Your task to perform on an android device: add a contact in the contacts app Image 0: 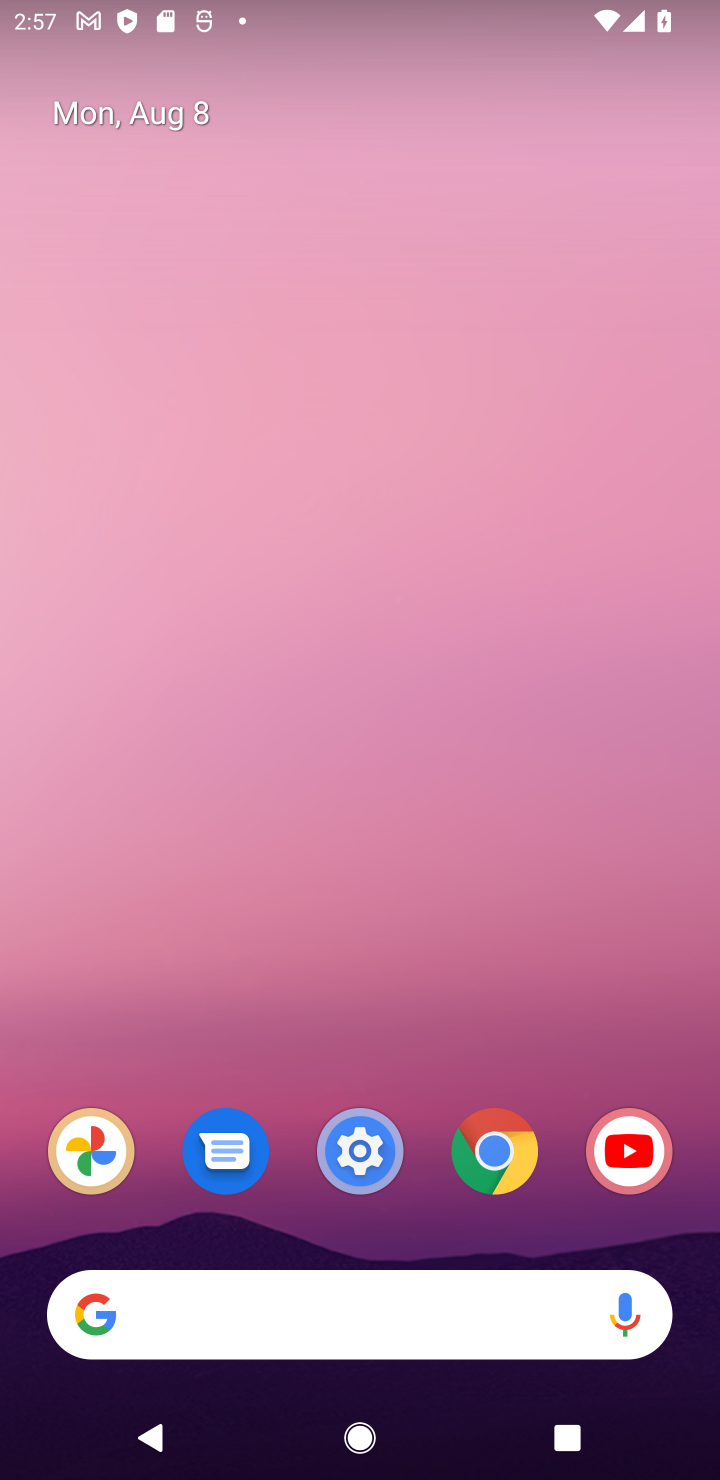
Step 0: press home button
Your task to perform on an android device: add a contact in the contacts app Image 1: 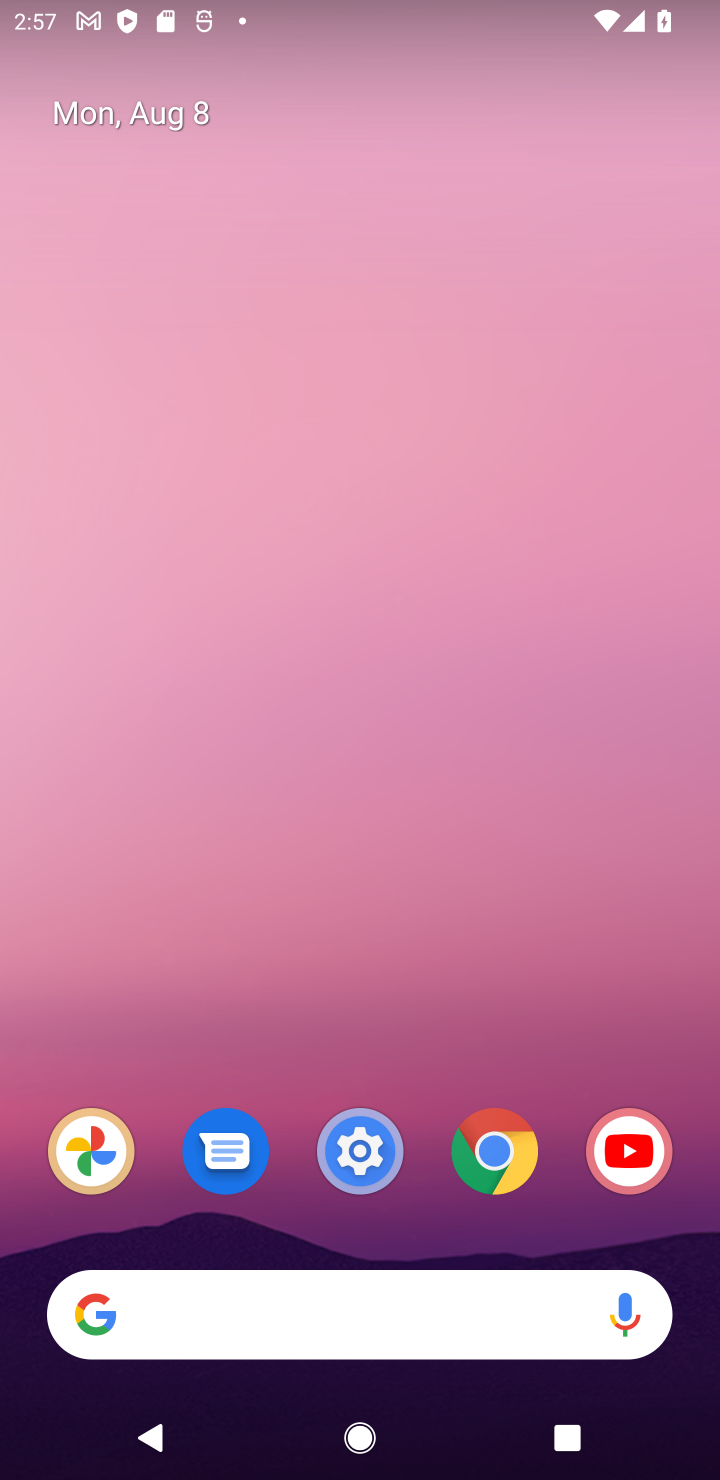
Step 1: drag from (389, 1103) to (386, 206)
Your task to perform on an android device: add a contact in the contacts app Image 2: 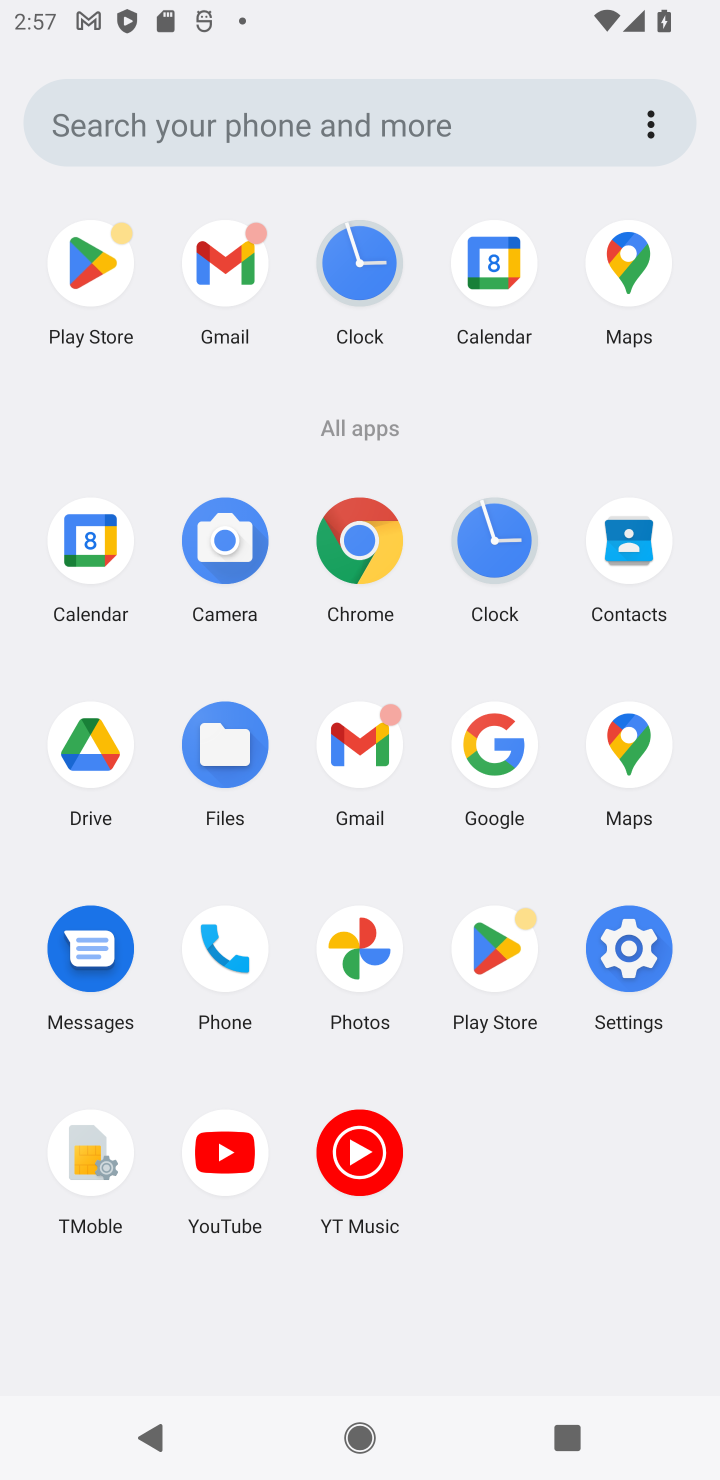
Step 2: click (628, 524)
Your task to perform on an android device: add a contact in the contacts app Image 3: 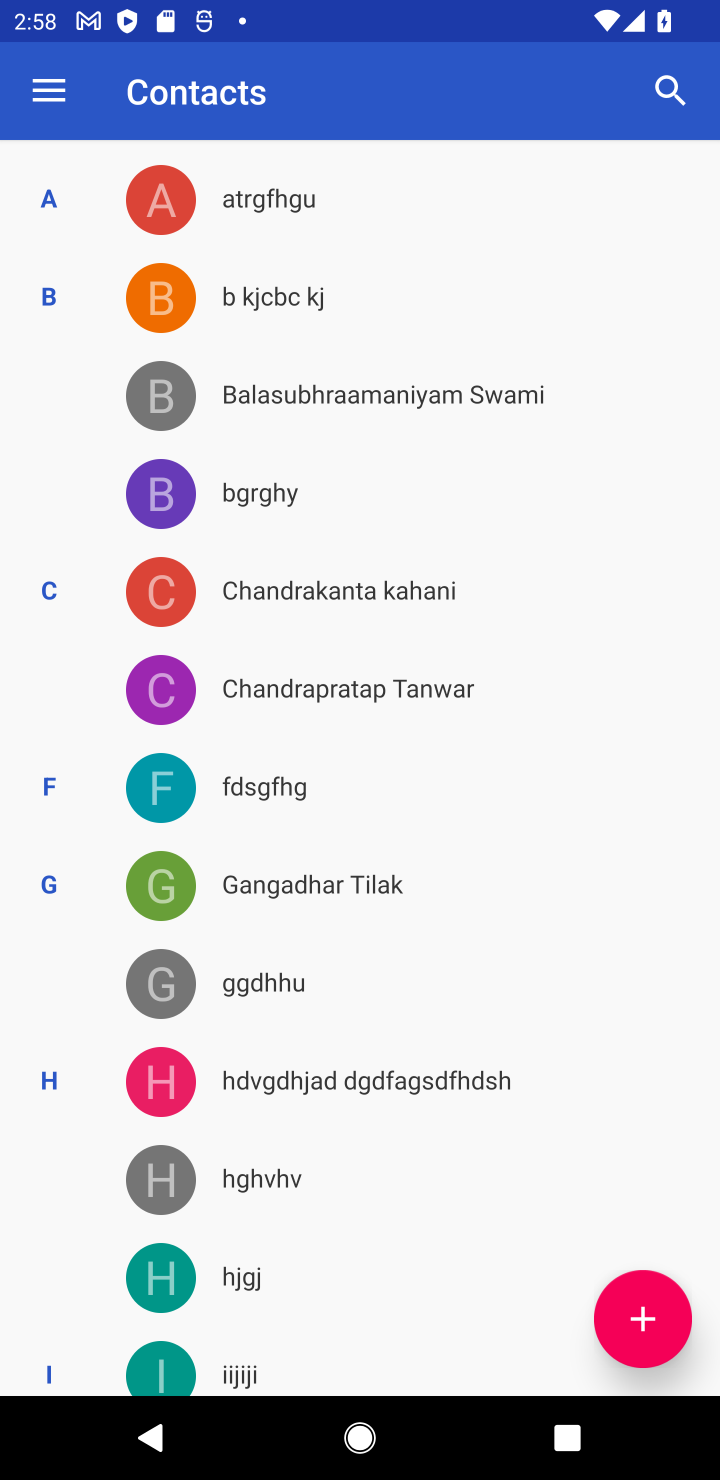
Step 3: click (641, 1330)
Your task to perform on an android device: add a contact in the contacts app Image 4: 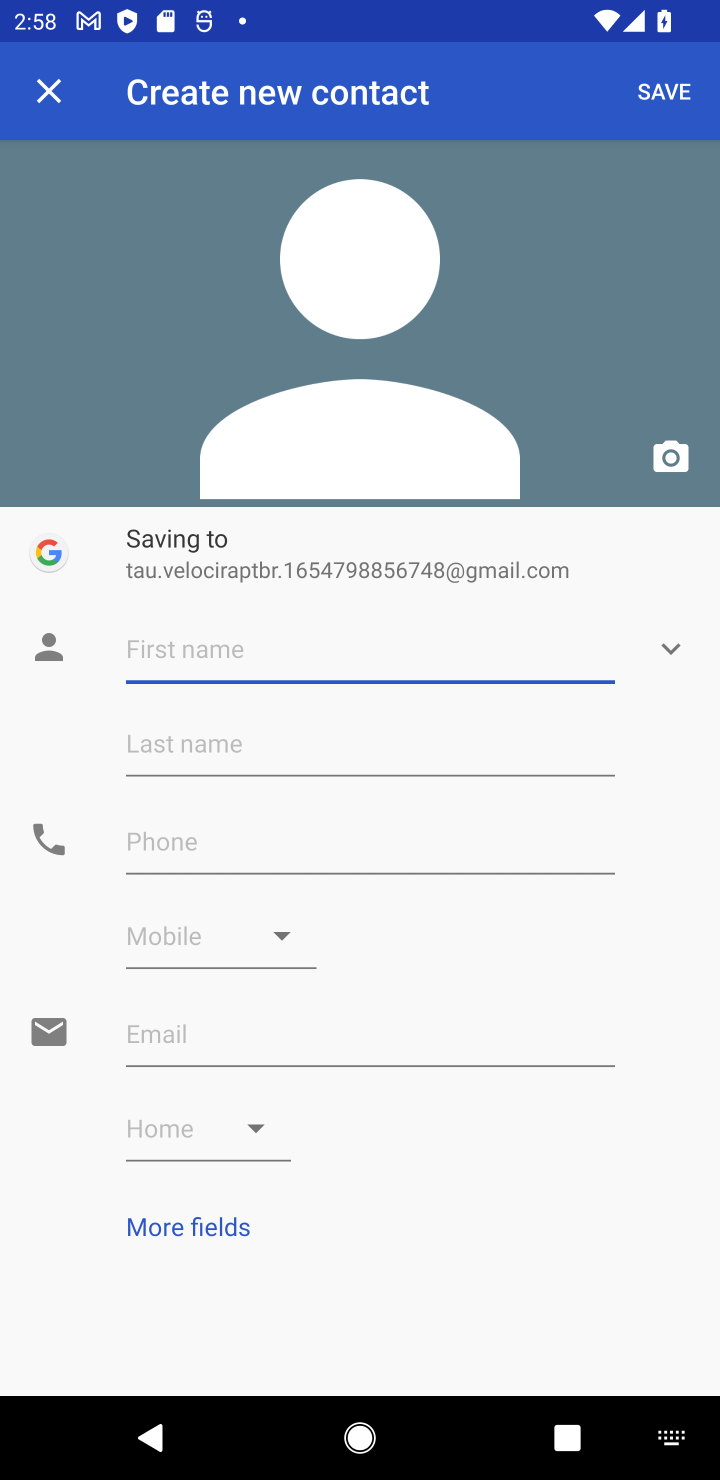
Step 4: type "dkv"
Your task to perform on an android device: add a contact in the contacts app Image 5: 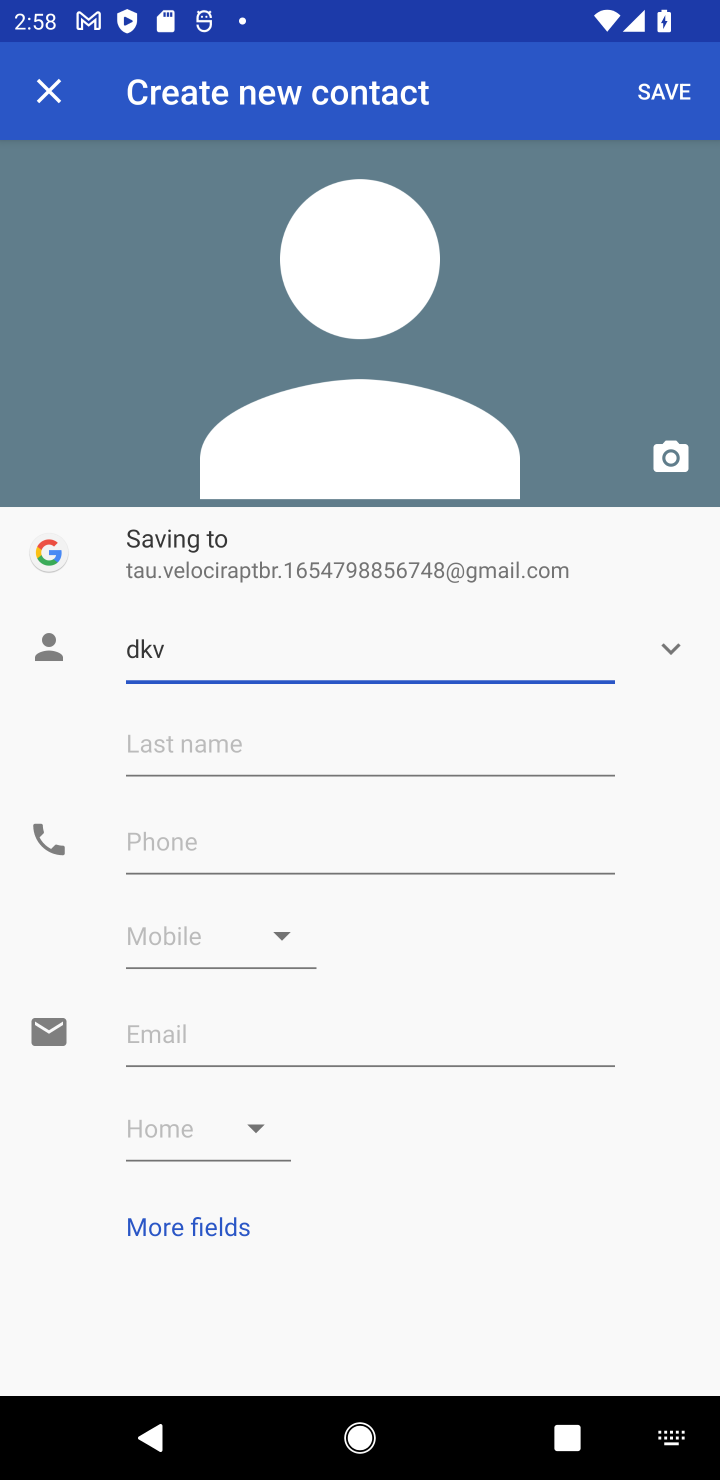
Step 5: click (469, 846)
Your task to perform on an android device: add a contact in the contacts app Image 6: 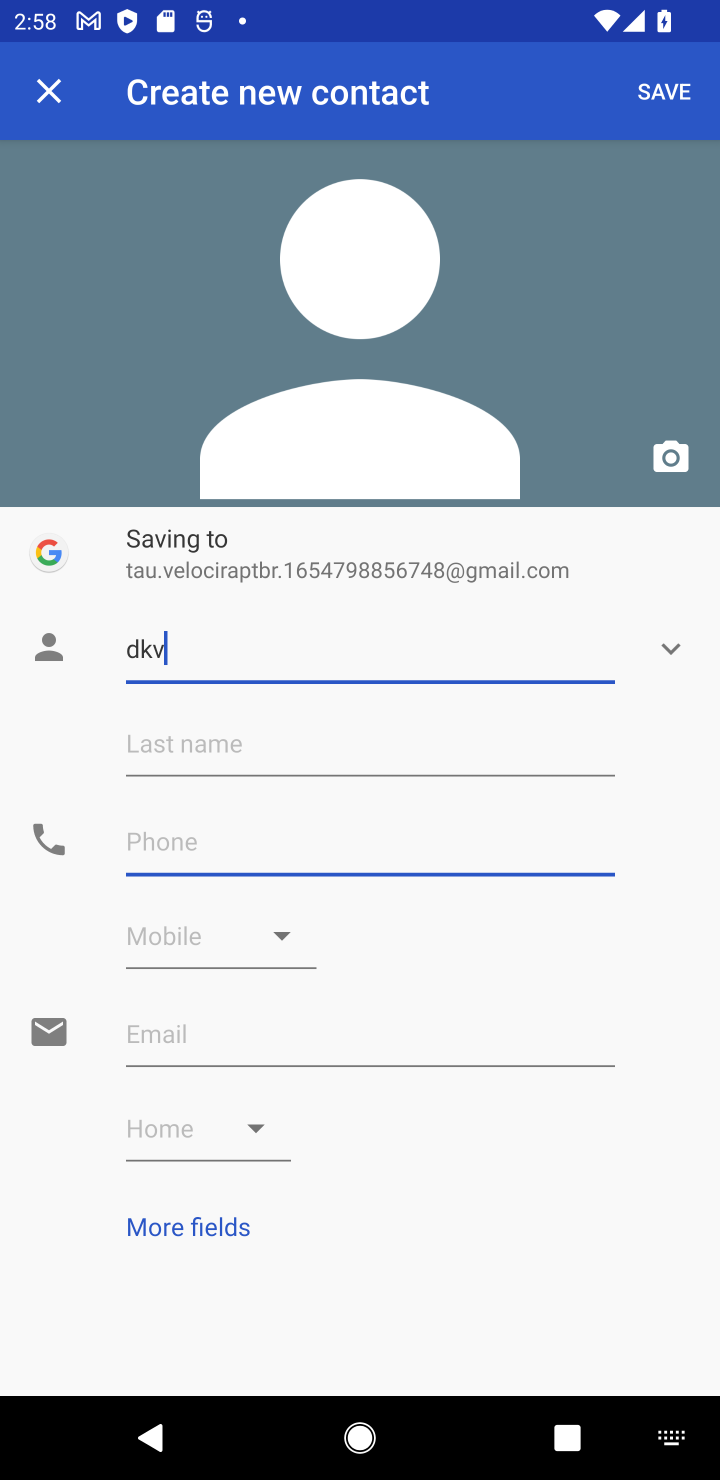
Step 6: click (469, 846)
Your task to perform on an android device: add a contact in the contacts app Image 7: 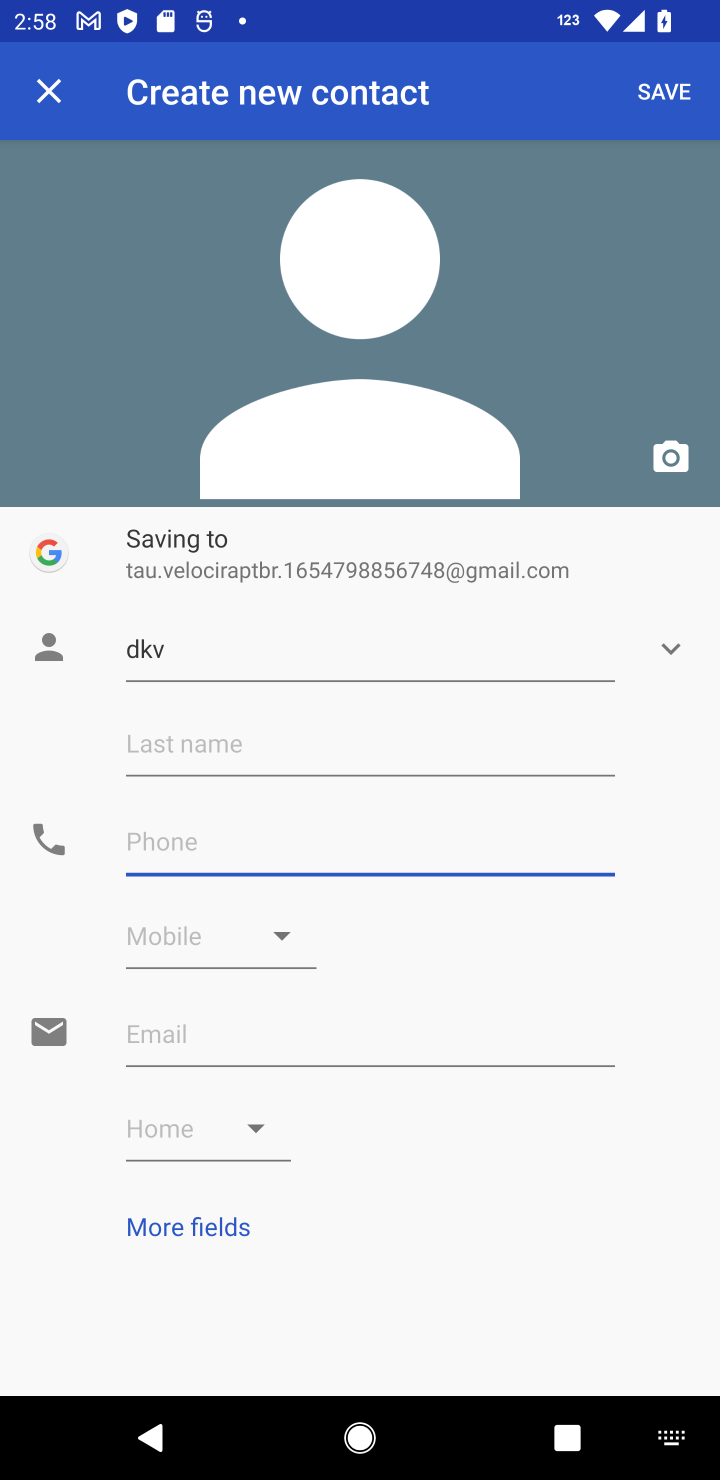
Step 7: type "37863874"
Your task to perform on an android device: add a contact in the contacts app Image 8: 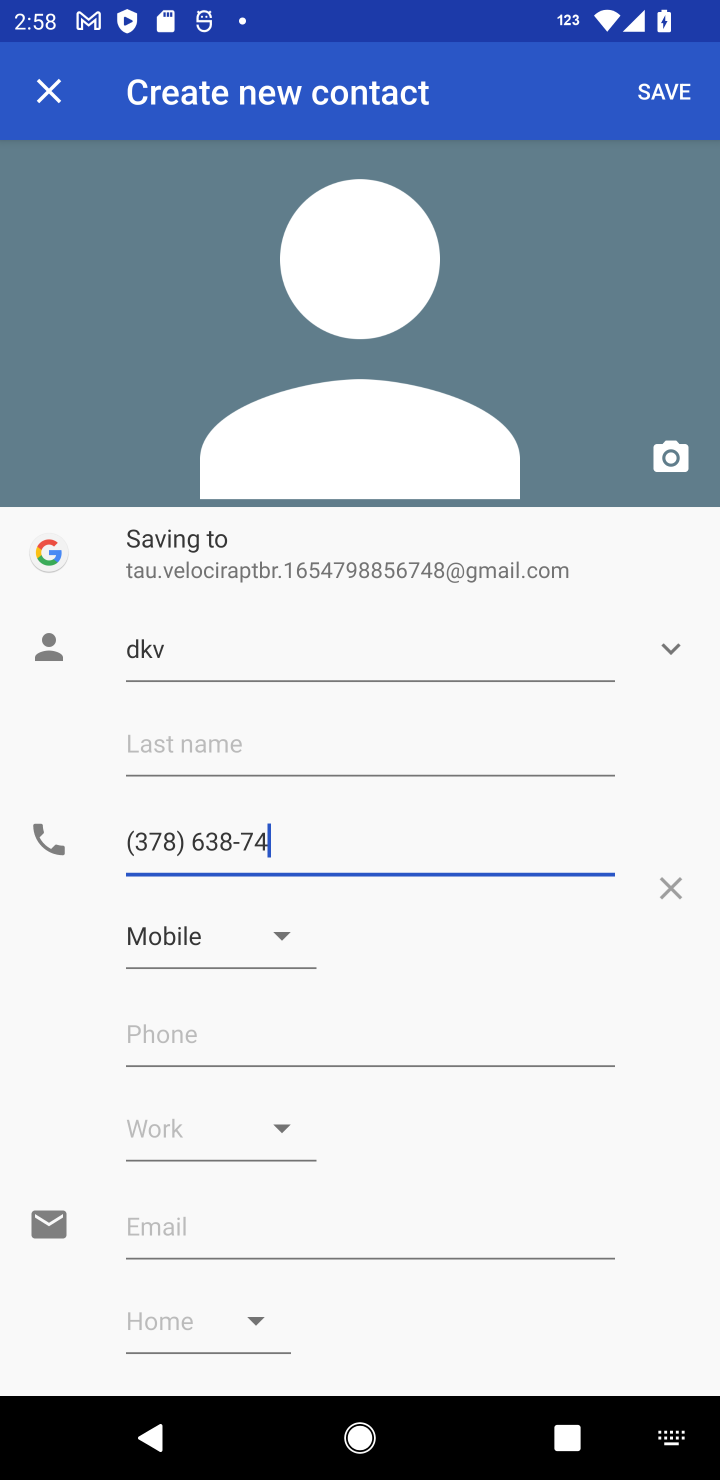
Step 8: click (658, 89)
Your task to perform on an android device: add a contact in the contacts app Image 9: 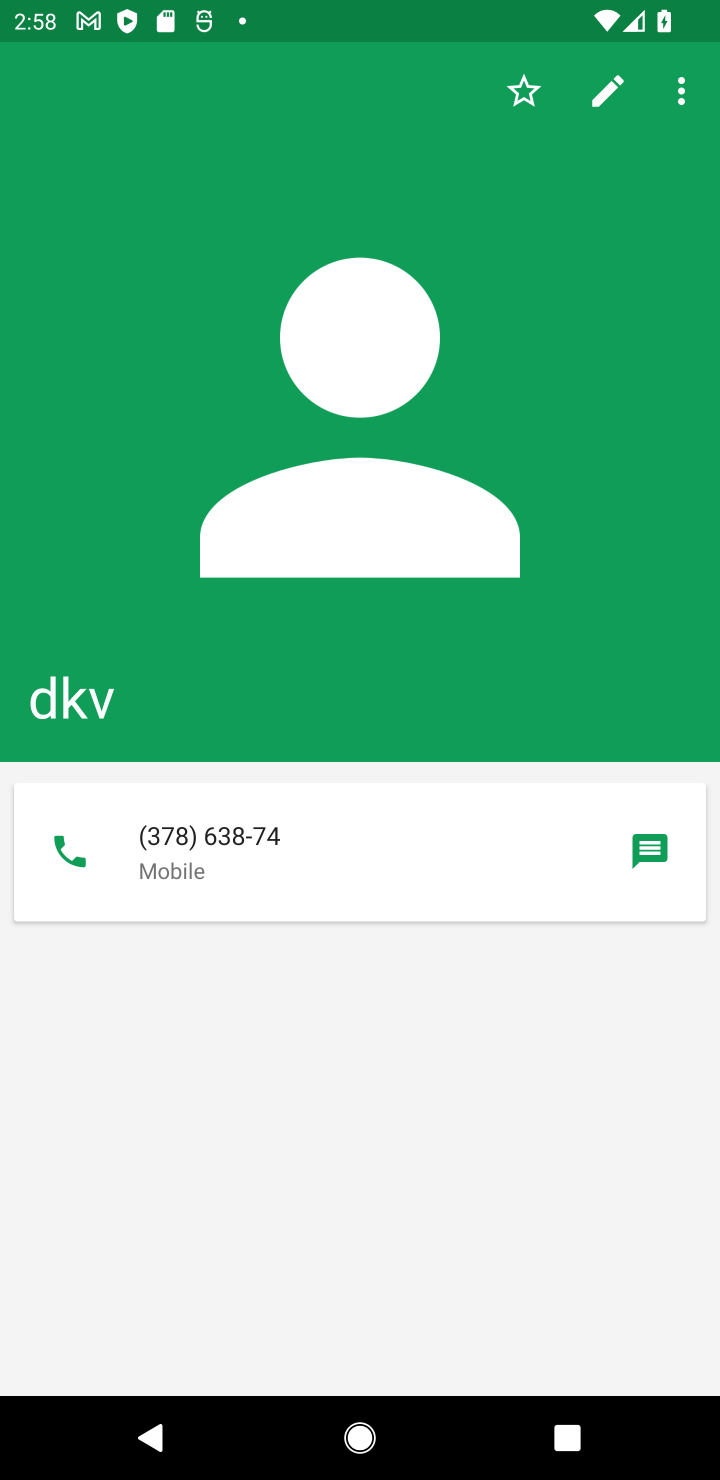
Step 9: task complete